Your task to perform on an android device: Go to Maps Image 0: 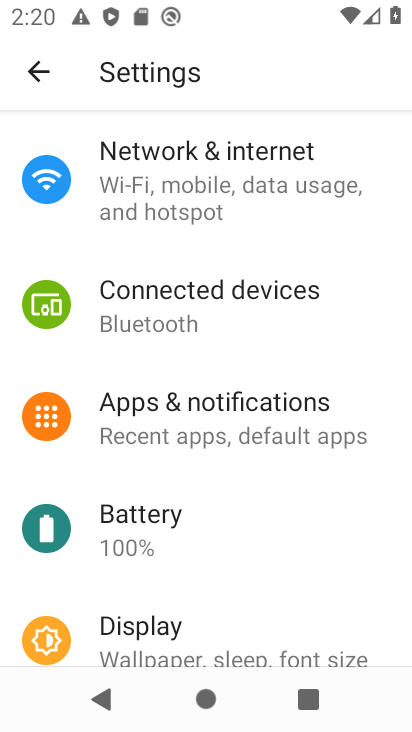
Step 0: press home button
Your task to perform on an android device: Go to Maps Image 1: 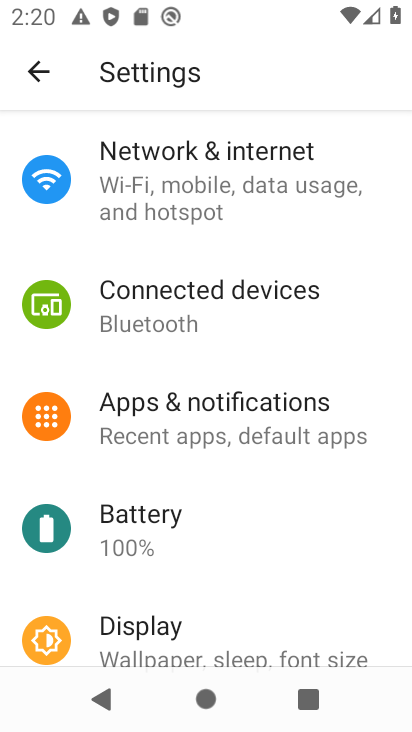
Step 1: press home button
Your task to perform on an android device: Go to Maps Image 2: 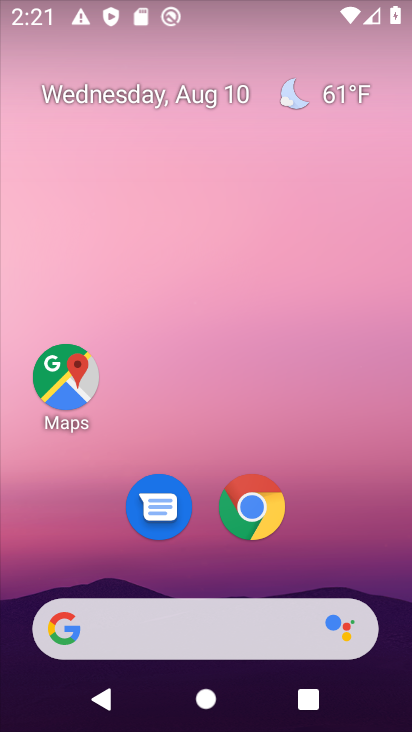
Step 2: drag from (340, 566) to (315, 63)
Your task to perform on an android device: Go to Maps Image 3: 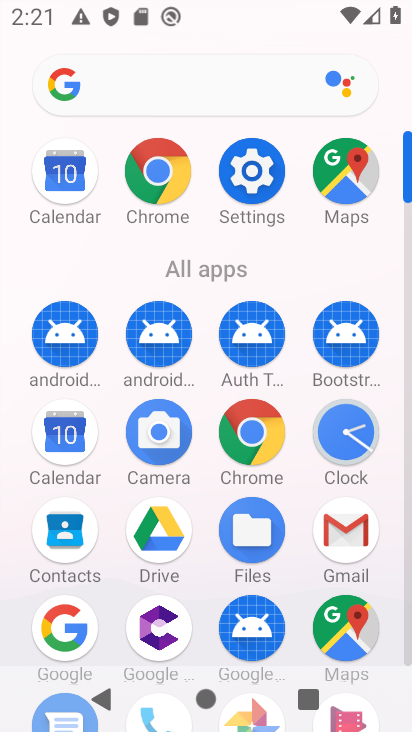
Step 3: click (336, 176)
Your task to perform on an android device: Go to Maps Image 4: 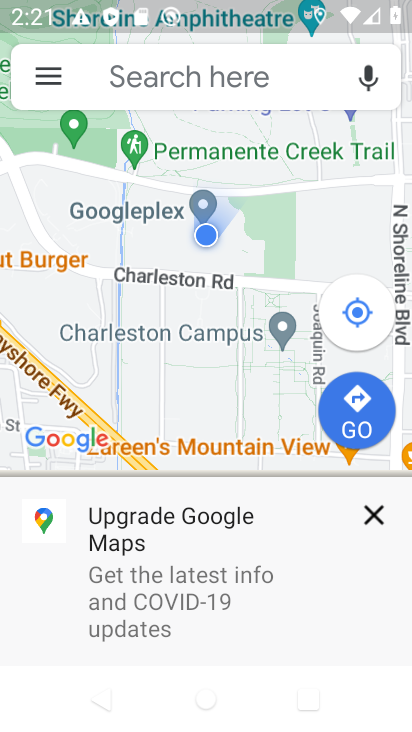
Step 4: task complete